Your task to perform on an android device: toggle airplane mode Image 0: 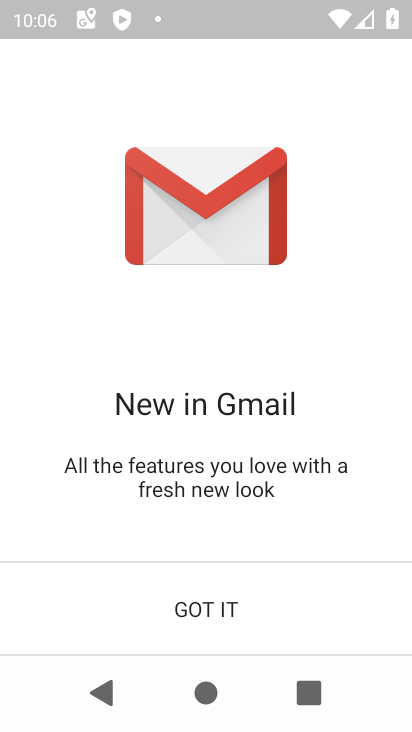
Step 0: press home button
Your task to perform on an android device: toggle airplane mode Image 1: 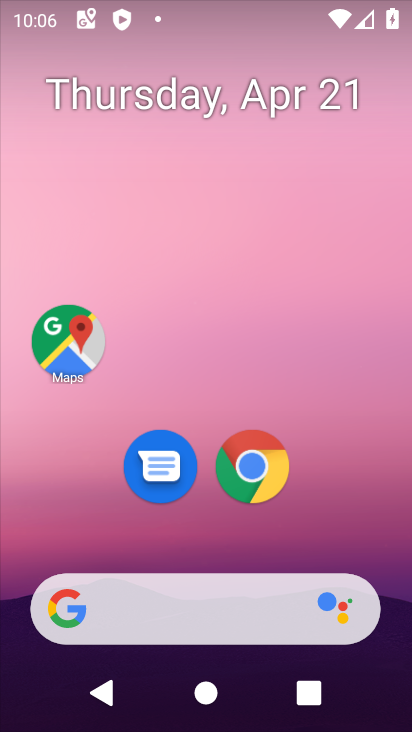
Step 1: drag from (208, 3) to (309, 448)
Your task to perform on an android device: toggle airplane mode Image 2: 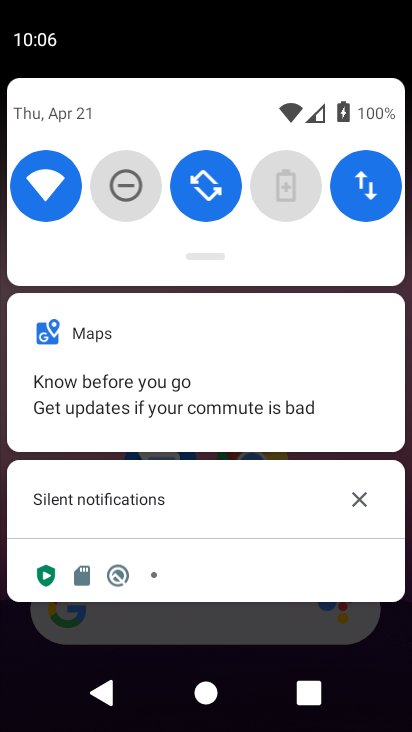
Step 2: drag from (328, 255) to (326, 508)
Your task to perform on an android device: toggle airplane mode Image 3: 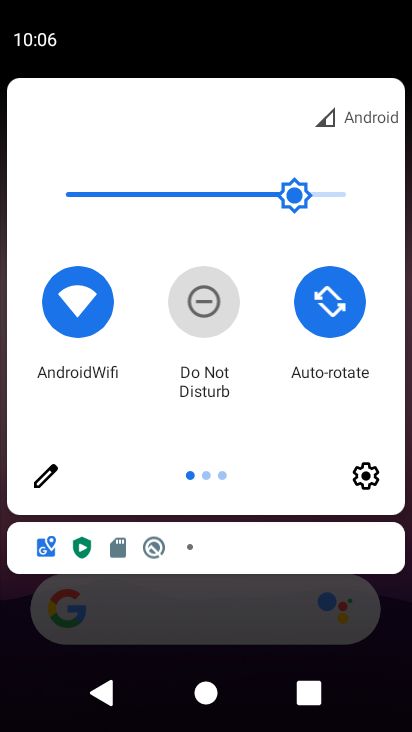
Step 3: drag from (354, 350) to (92, 377)
Your task to perform on an android device: toggle airplane mode Image 4: 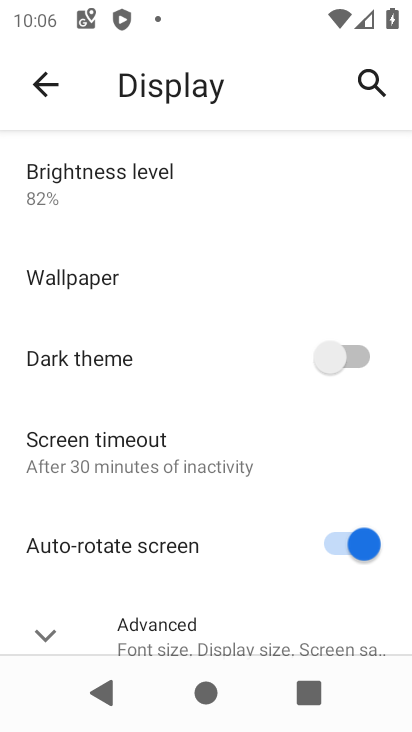
Step 4: click (53, 95)
Your task to perform on an android device: toggle airplane mode Image 5: 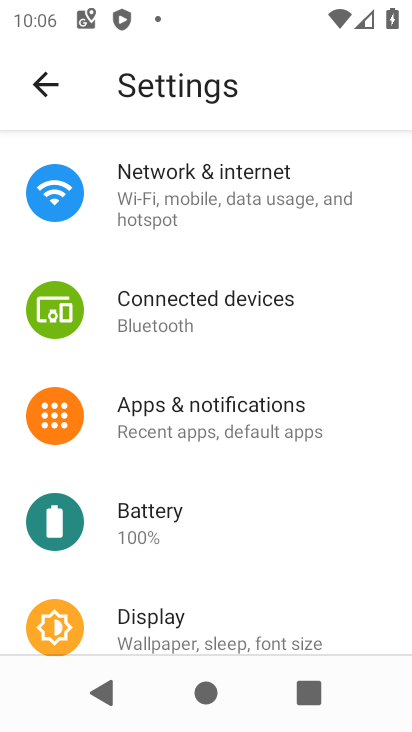
Step 5: click (188, 208)
Your task to perform on an android device: toggle airplane mode Image 6: 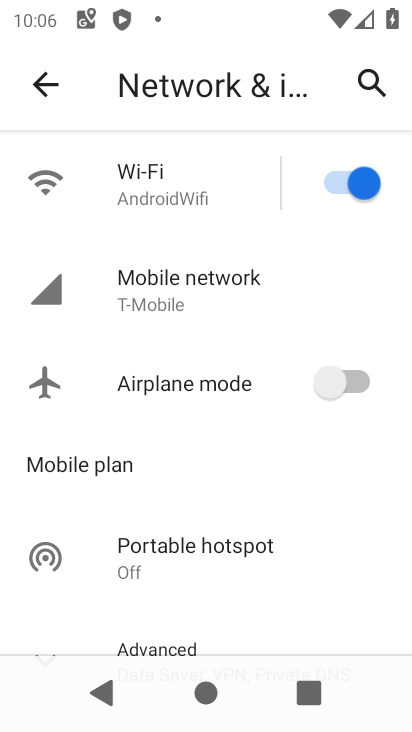
Step 6: click (347, 387)
Your task to perform on an android device: toggle airplane mode Image 7: 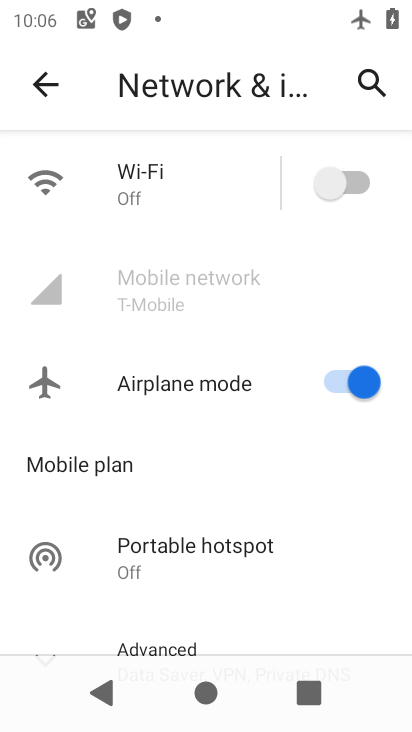
Step 7: task complete